Your task to perform on an android device: Search for sushi restaurants on Maps Image 0: 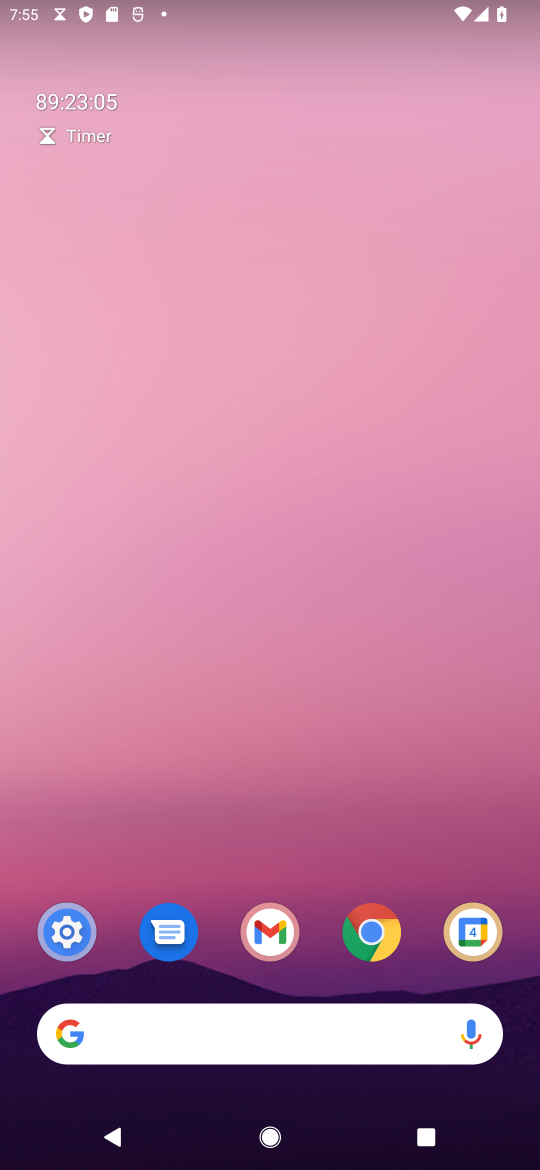
Step 0: drag from (301, 888) to (279, 257)
Your task to perform on an android device: Search for sushi restaurants on Maps Image 1: 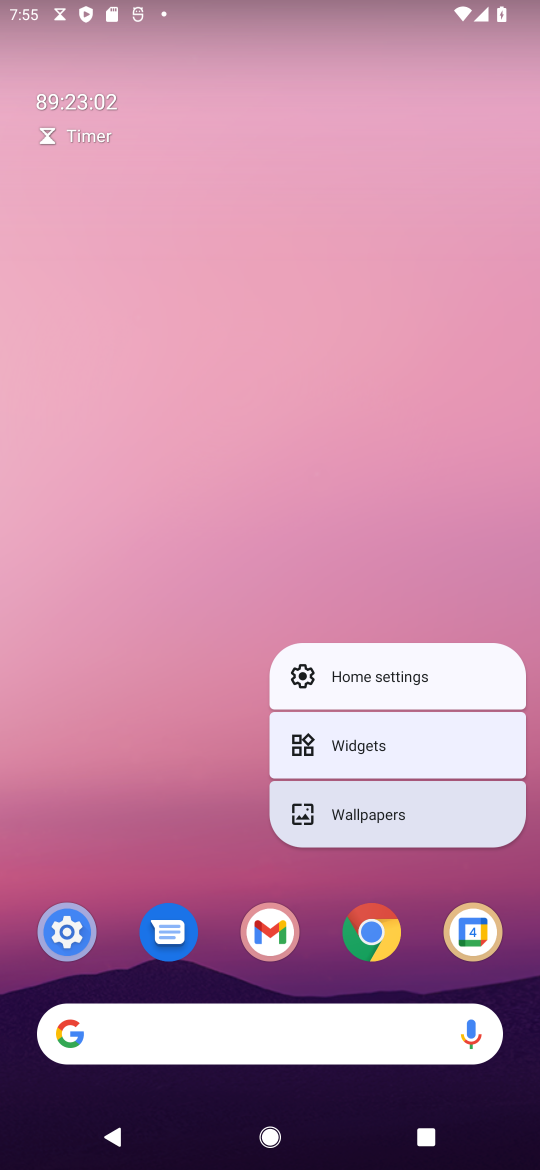
Step 1: click (164, 571)
Your task to perform on an android device: Search for sushi restaurants on Maps Image 2: 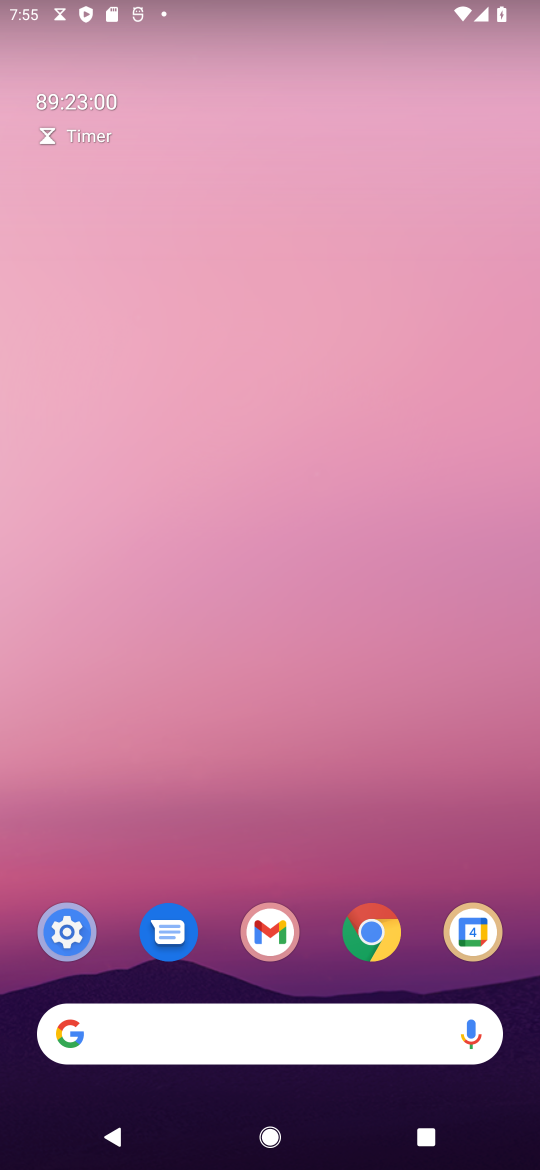
Step 2: drag from (182, 719) to (130, 189)
Your task to perform on an android device: Search for sushi restaurants on Maps Image 3: 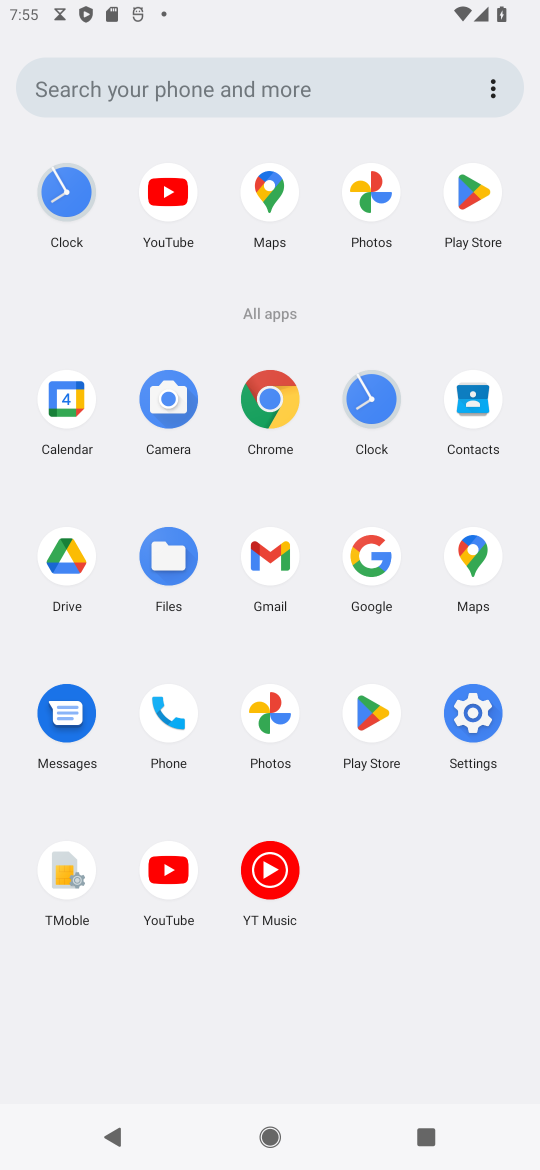
Step 3: click (271, 205)
Your task to perform on an android device: Search for sushi restaurants on Maps Image 4: 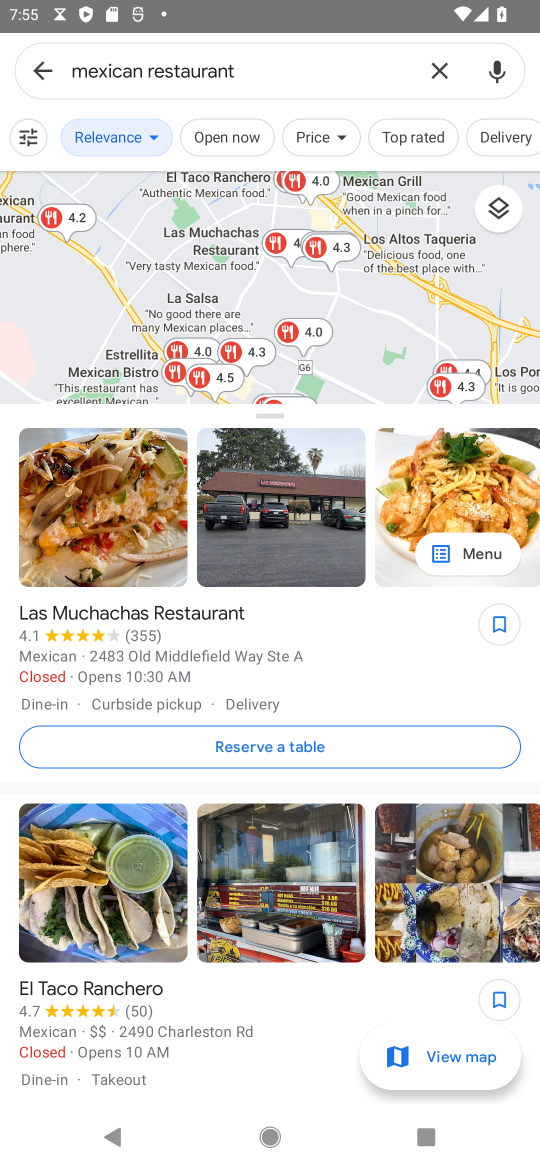
Step 4: click (305, 66)
Your task to perform on an android device: Search for sushi restaurants on Maps Image 5: 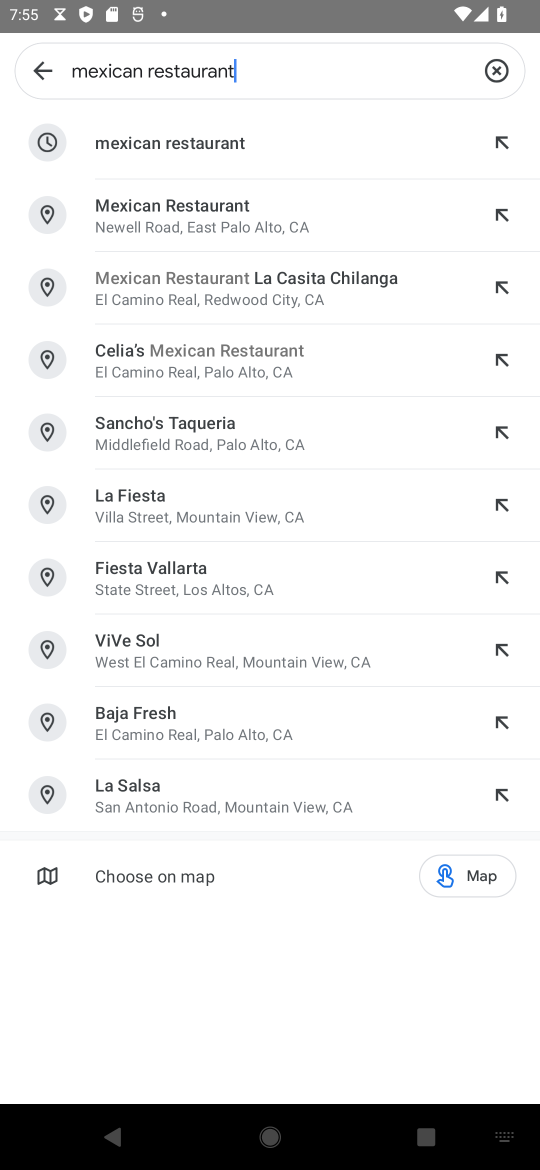
Step 5: click (490, 69)
Your task to perform on an android device: Search for sushi restaurants on Maps Image 6: 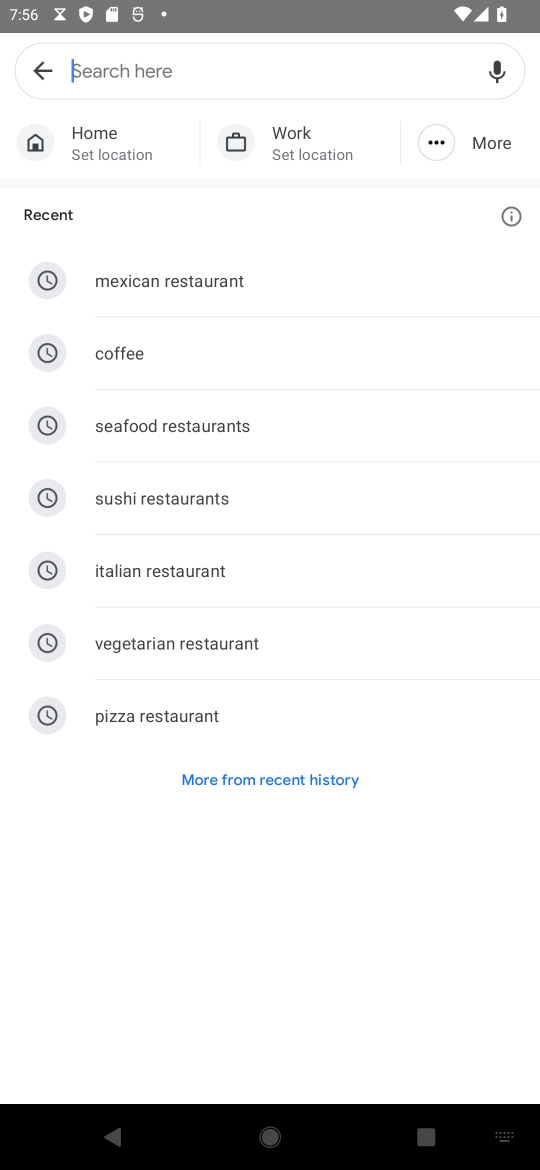
Step 6: type "sushi restaurants"
Your task to perform on an android device: Search for sushi restaurants on Maps Image 7: 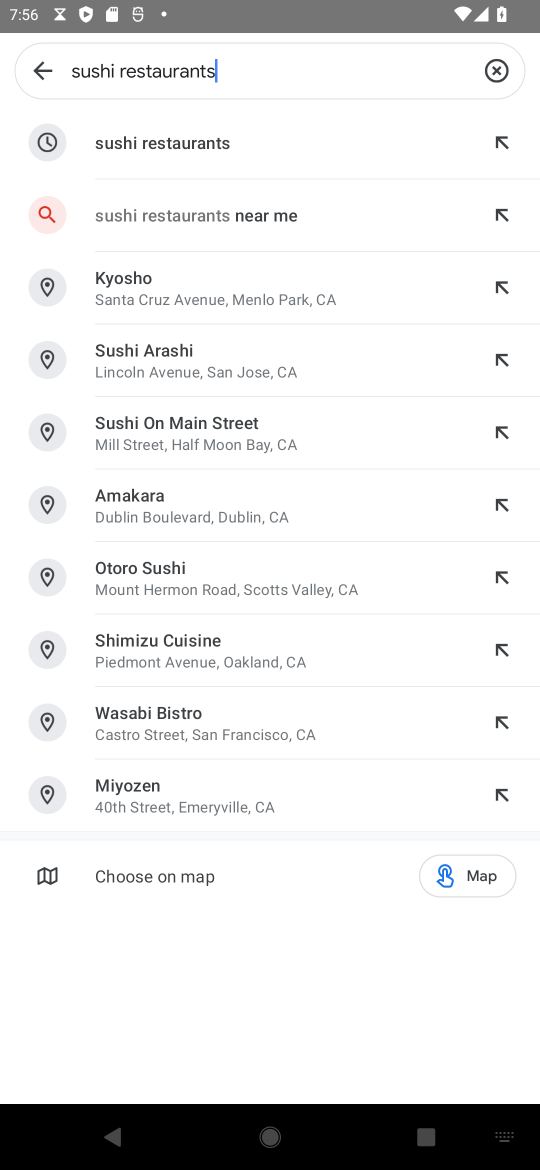
Step 7: click (208, 159)
Your task to perform on an android device: Search for sushi restaurants on Maps Image 8: 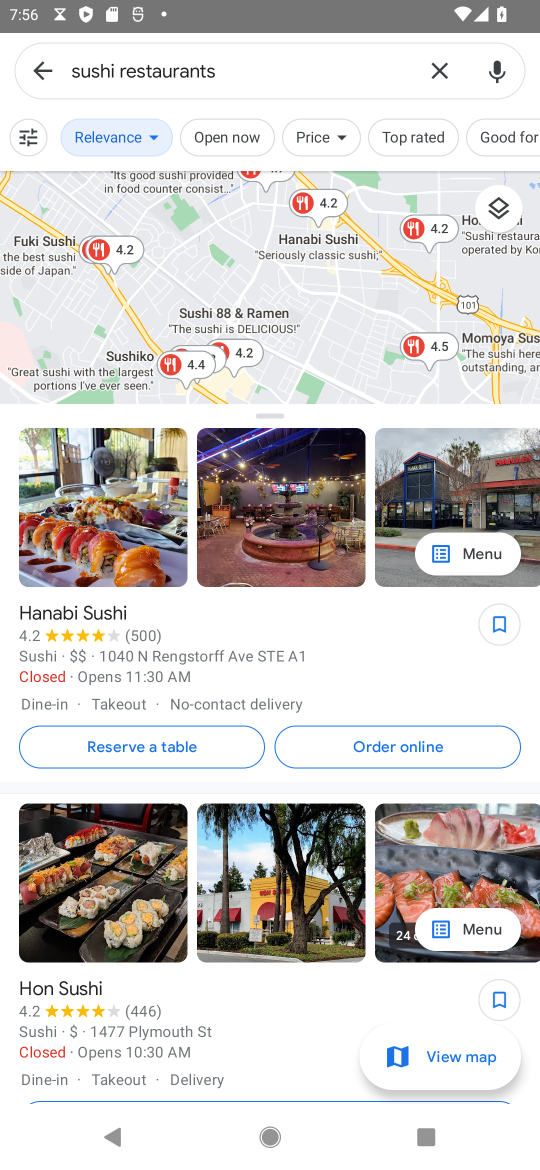
Step 8: task complete